Your task to perform on an android device: install app "File Manager" Image 0: 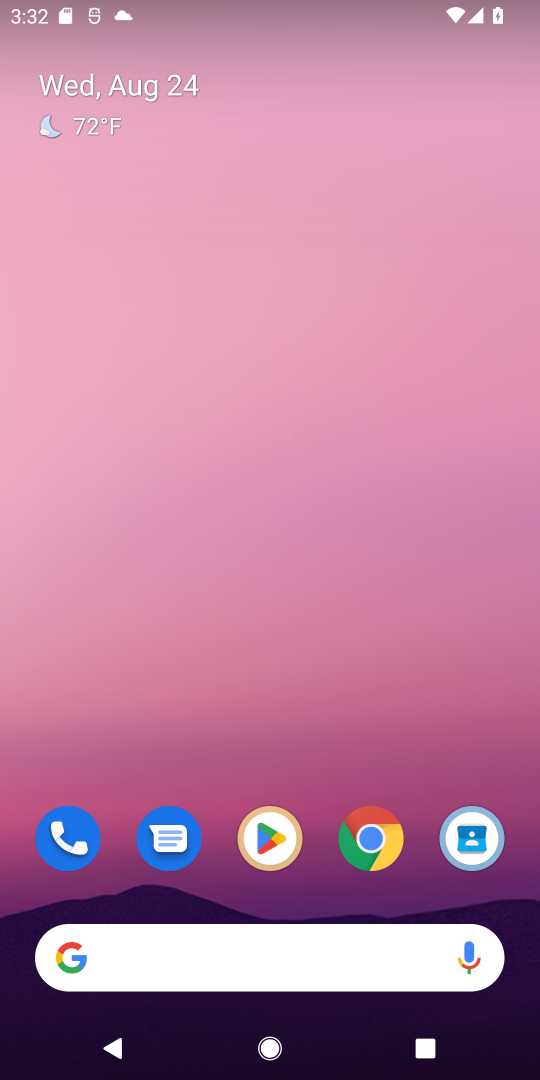
Step 0: click (281, 831)
Your task to perform on an android device: install app "File Manager" Image 1: 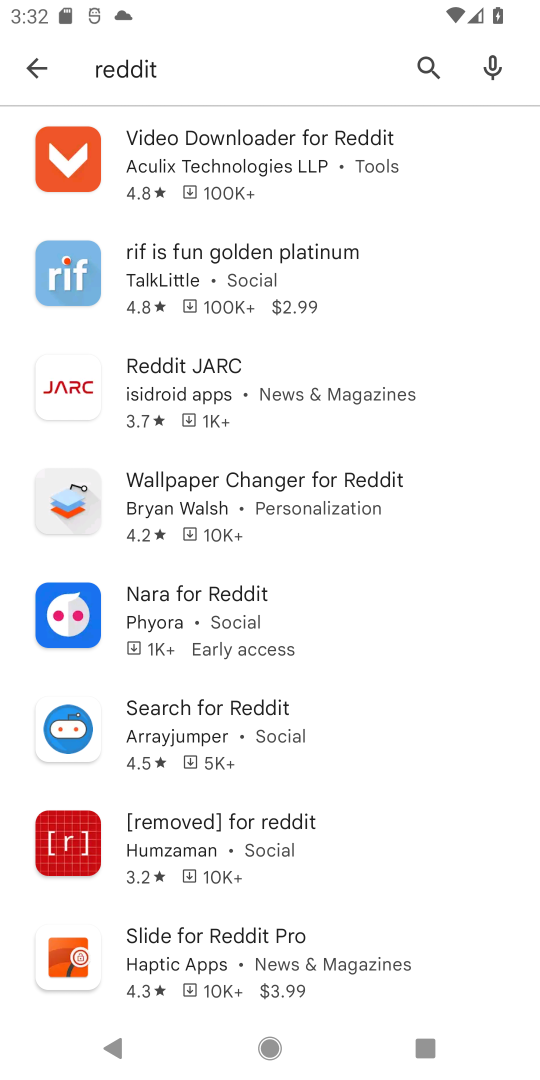
Step 1: click (30, 59)
Your task to perform on an android device: install app "File Manager" Image 2: 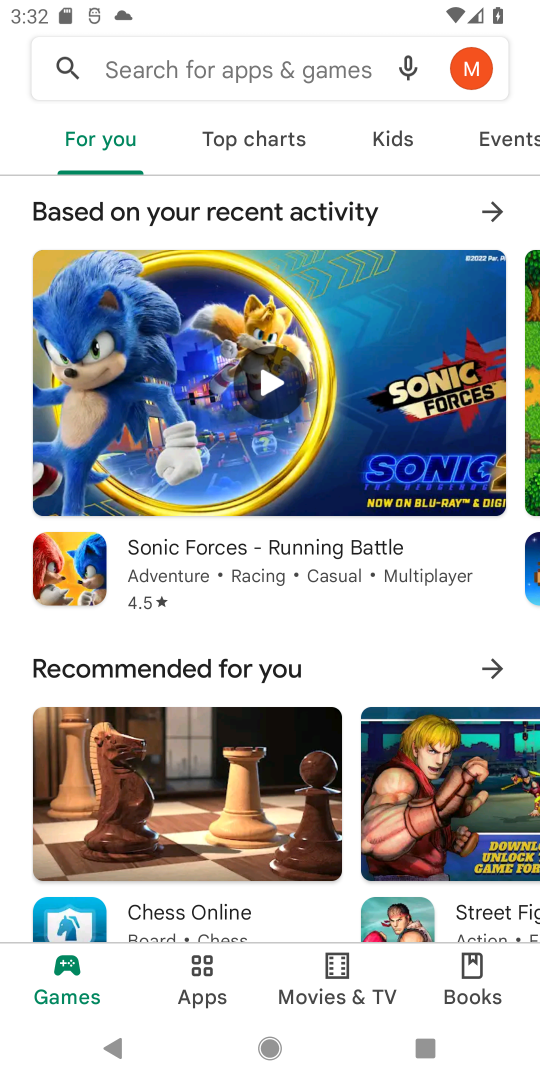
Step 2: click (186, 57)
Your task to perform on an android device: install app "File Manager" Image 3: 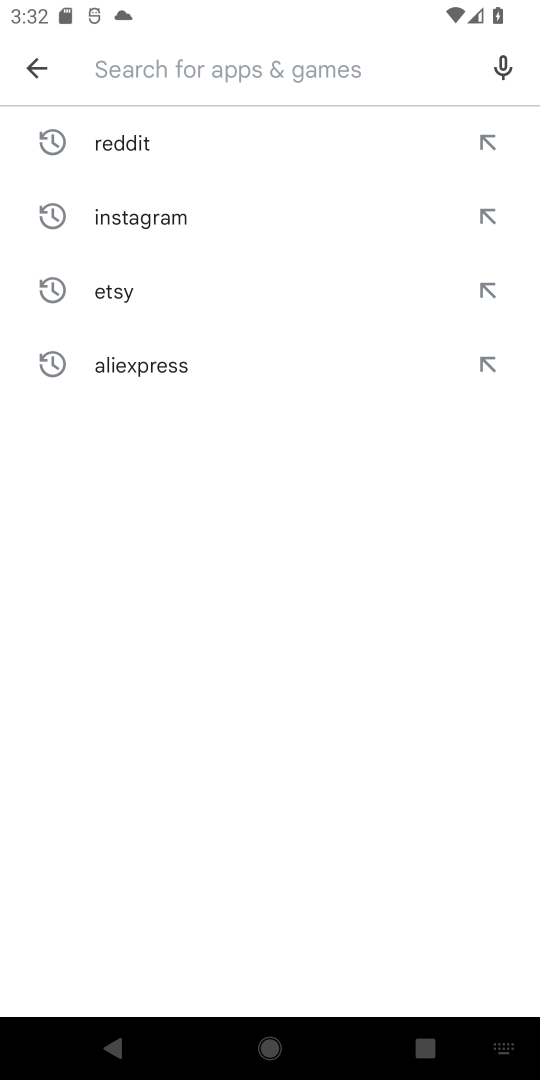
Step 3: drag from (172, 1046) to (501, 1047)
Your task to perform on an android device: install app "File Manager" Image 4: 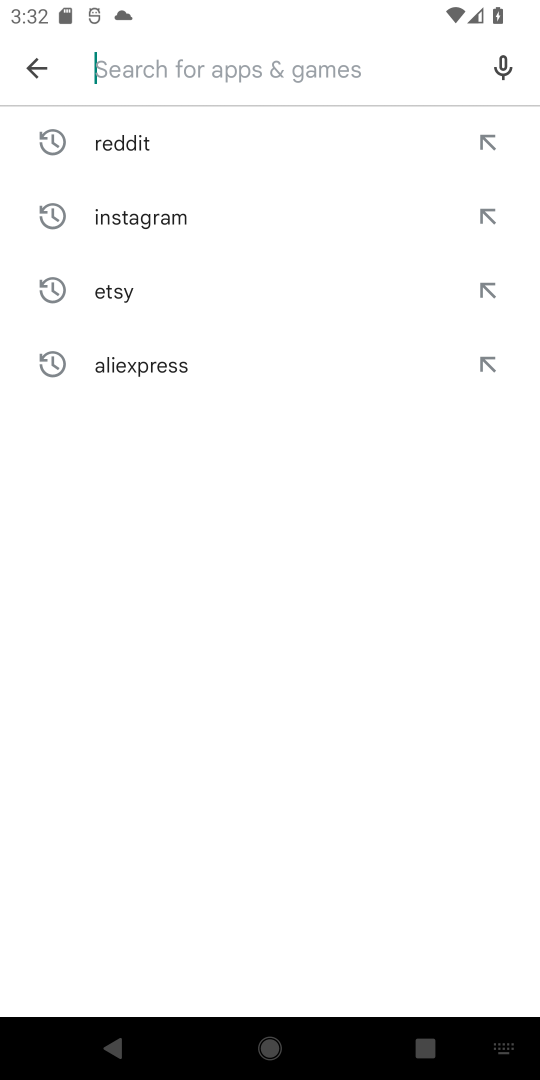
Step 4: type "File Manager"
Your task to perform on an android device: install app "File Manager" Image 5: 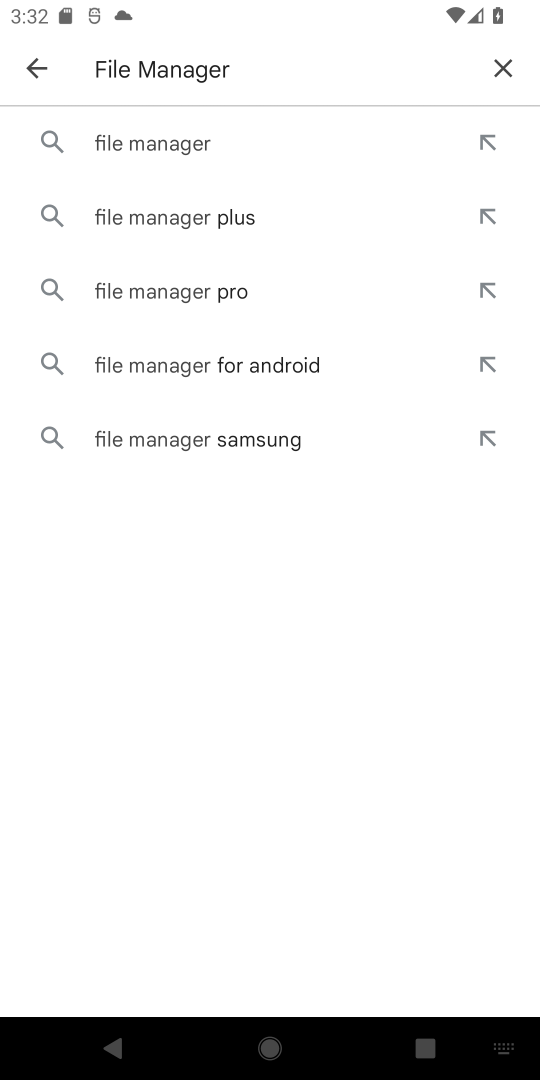
Step 5: click (233, 126)
Your task to perform on an android device: install app "File Manager" Image 6: 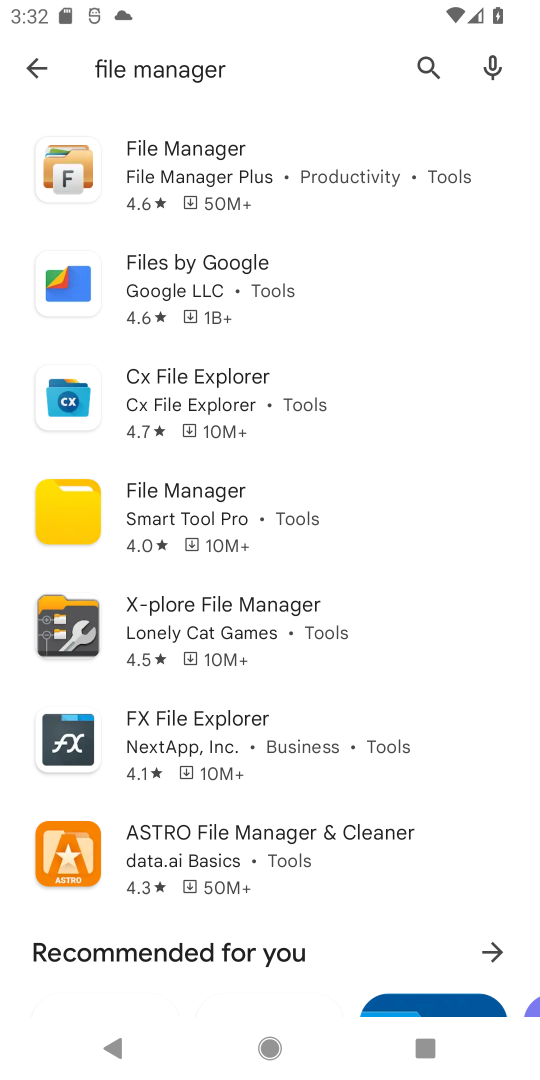
Step 6: click (240, 161)
Your task to perform on an android device: install app "File Manager" Image 7: 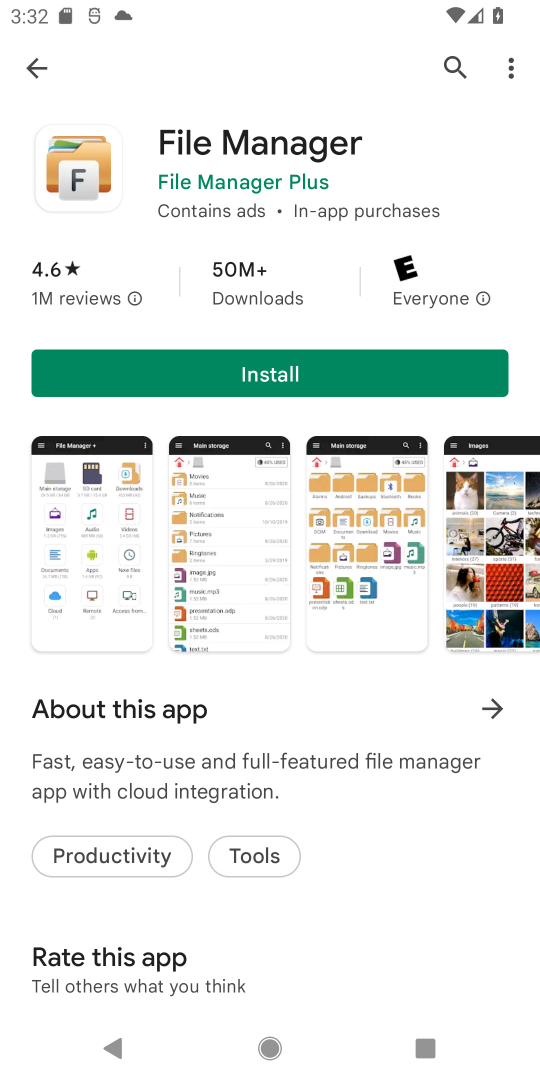
Step 7: click (201, 347)
Your task to perform on an android device: install app "File Manager" Image 8: 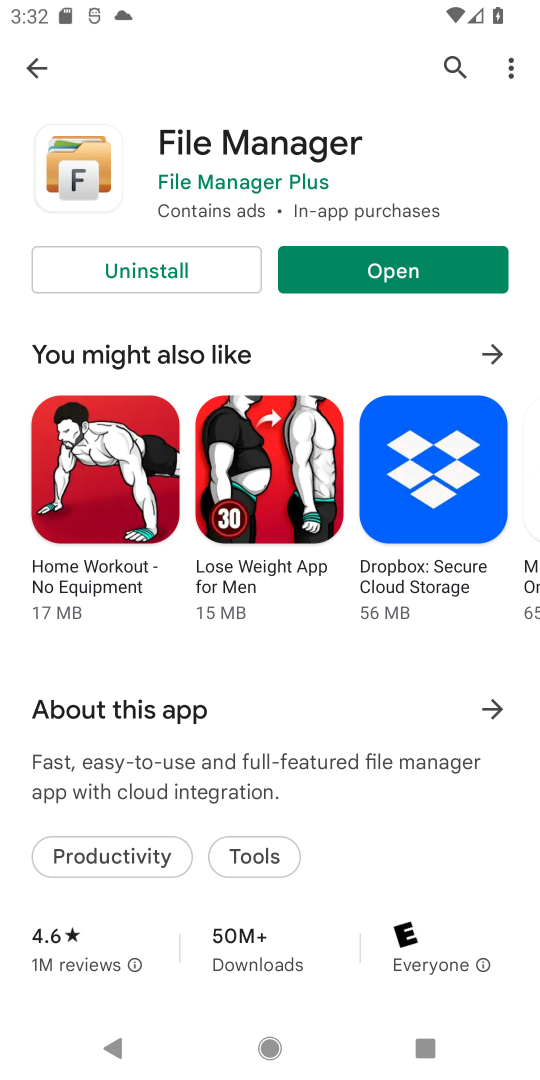
Step 8: task complete